Your task to perform on an android device: find which apps use the phone's location Image 0: 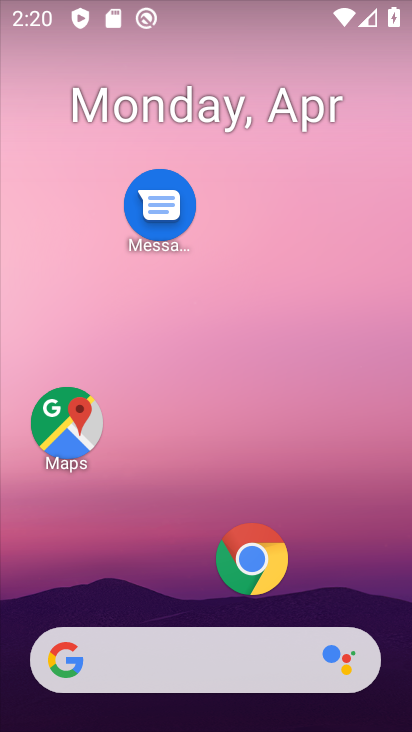
Step 0: drag from (295, 9) to (43, 140)
Your task to perform on an android device: find which apps use the phone's location Image 1: 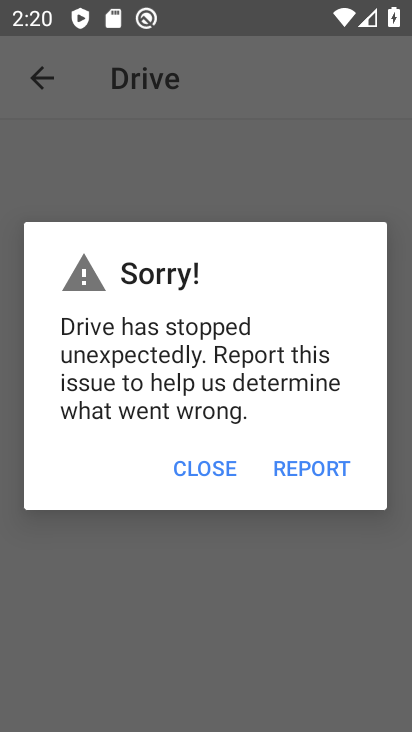
Step 1: click (214, 472)
Your task to perform on an android device: find which apps use the phone's location Image 2: 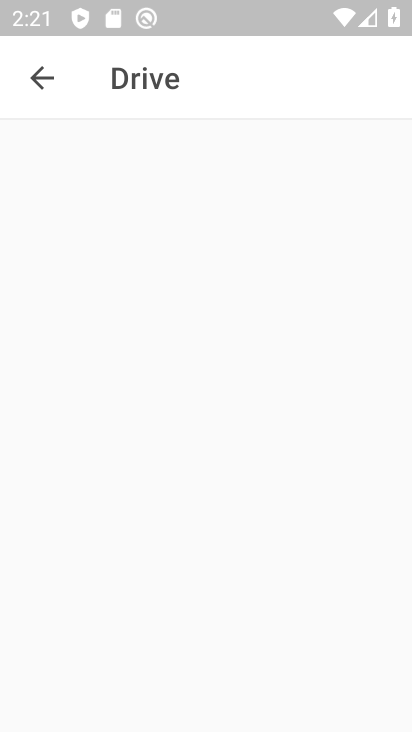
Step 2: press home button
Your task to perform on an android device: find which apps use the phone's location Image 3: 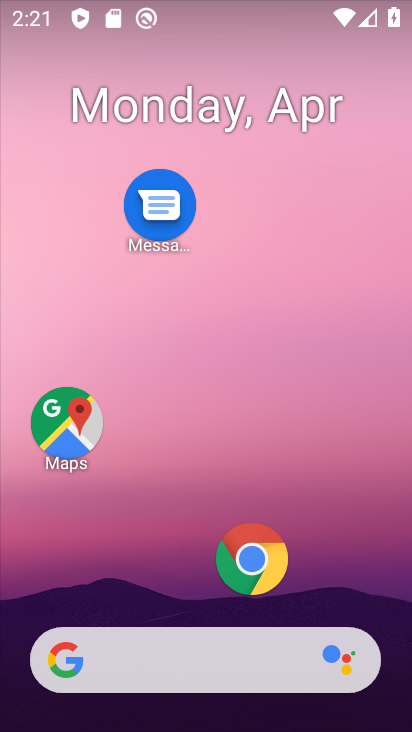
Step 3: drag from (169, 596) to (206, 9)
Your task to perform on an android device: find which apps use the phone's location Image 4: 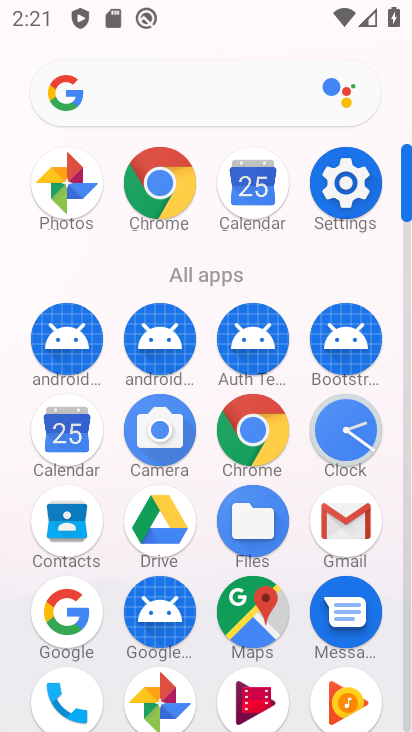
Step 4: click (342, 198)
Your task to perform on an android device: find which apps use the phone's location Image 5: 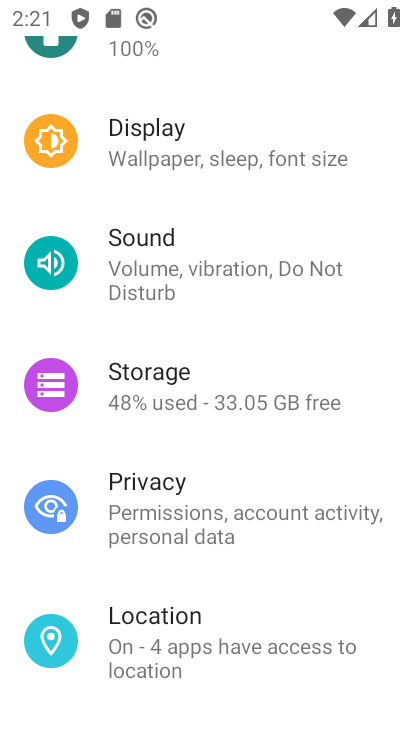
Step 5: click (157, 642)
Your task to perform on an android device: find which apps use the phone's location Image 6: 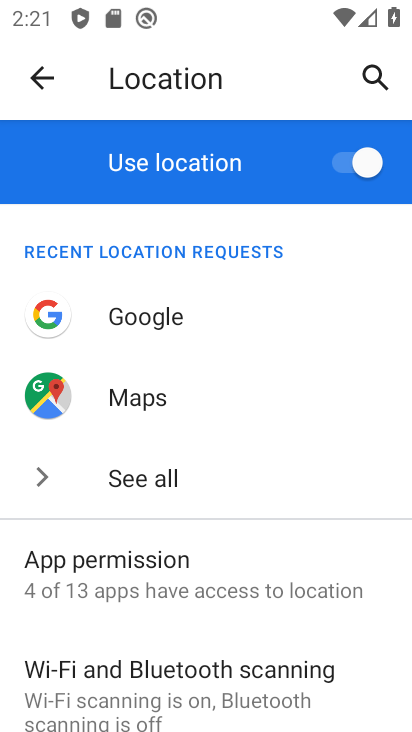
Step 6: click (165, 563)
Your task to perform on an android device: find which apps use the phone's location Image 7: 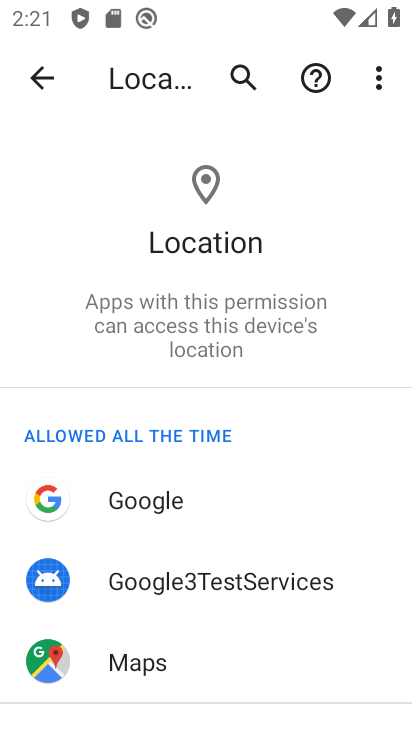
Step 7: task complete